Your task to perform on an android device: Open settings Image 0: 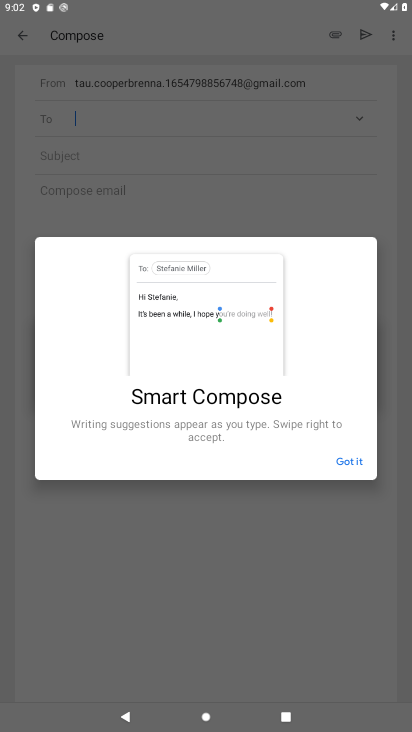
Step 0: press home button
Your task to perform on an android device: Open settings Image 1: 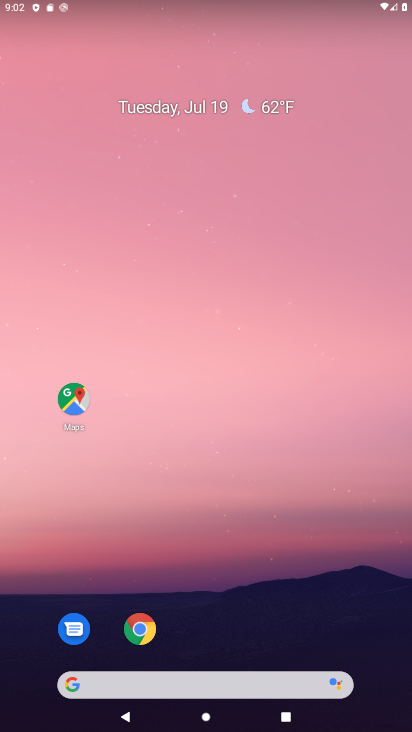
Step 1: drag from (217, 657) to (278, 26)
Your task to perform on an android device: Open settings Image 2: 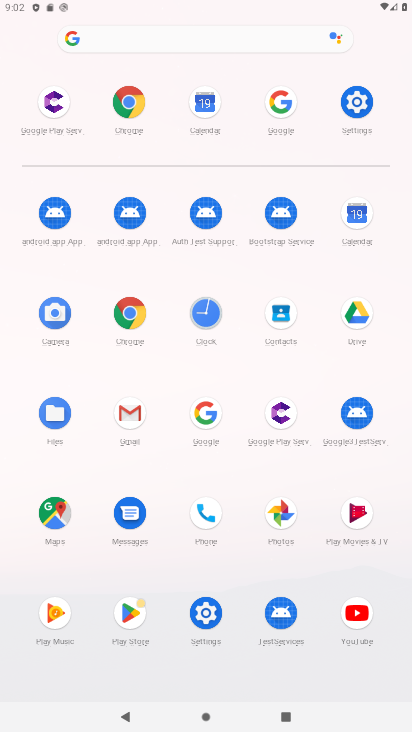
Step 2: click (357, 98)
Your task to perform on an android device: Open settings Image 3: 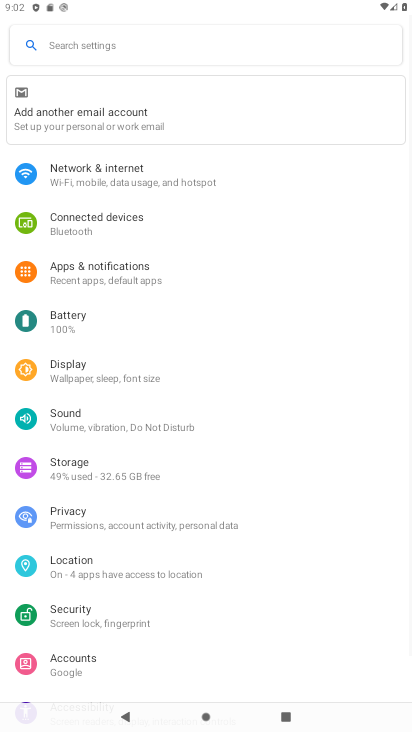
Step 3: task complete